Your task to perform on an android device: Open the phone app and click the voicemail tab. Image 0: 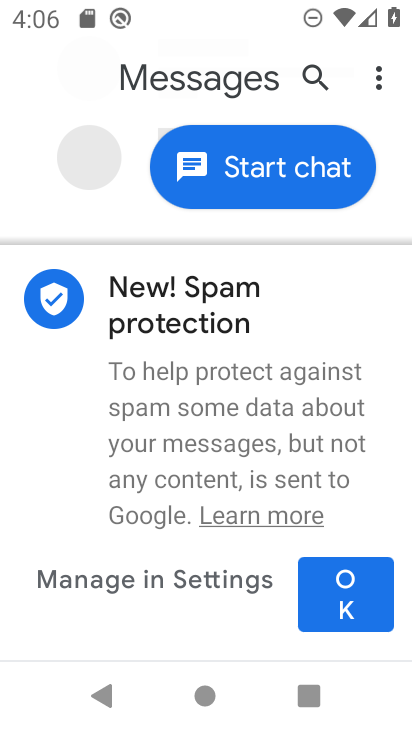
Step 0: press home button
Your task to perform on an android device: Open the phone app and click the voicemail tab. Image 1: 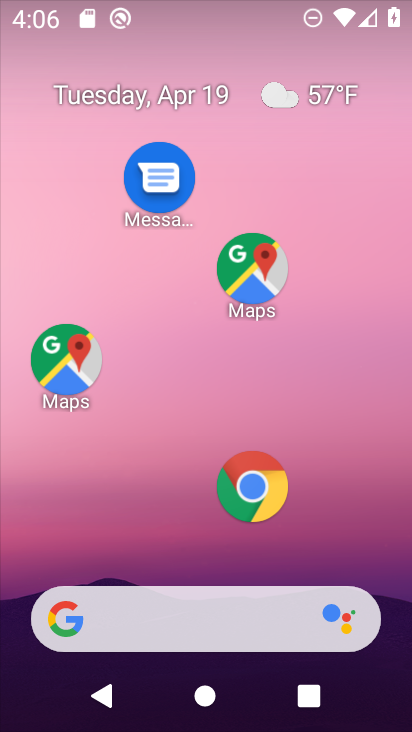
Step 1: drag from (198, 524) to (186, 114)
Your task to perform on an android device: Open the phone app and click the voicemail tab. Image 2: 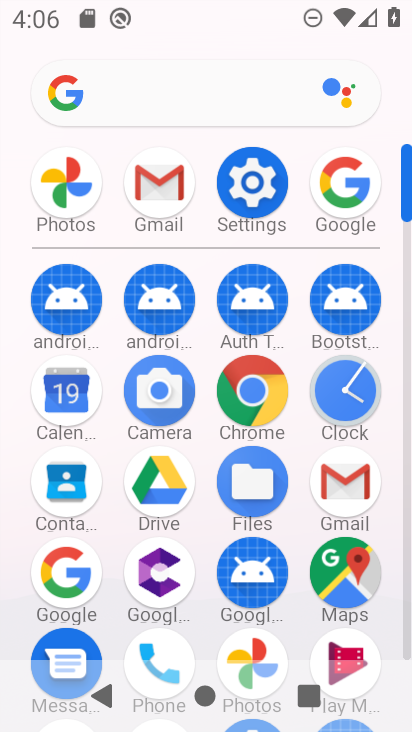
Step 2: click (150, 636)
Your task to perform on an android device: Open the phone app and click the voicemail tab. Image 3: 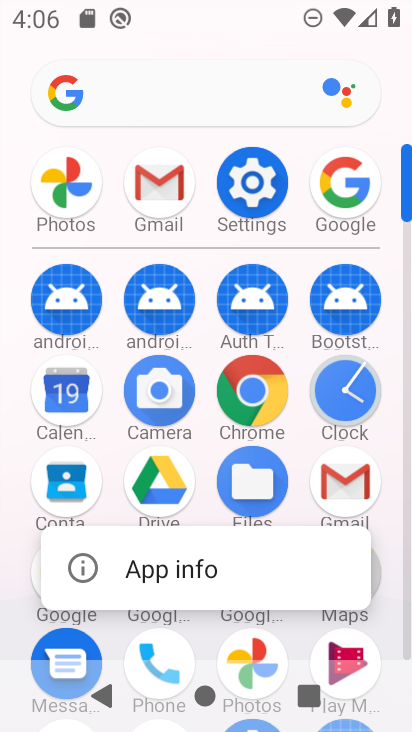
Step 3: click (161, 565)
Your task to perform on an android device: Open the phone app and click the voicemail tab. Image 4: 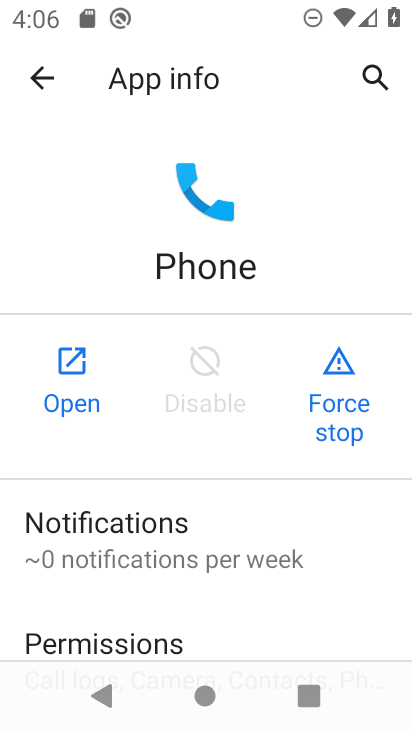
Step 4: click (13, 393)
Your task to perform on an android device: Open the phone app and click the voicemail tab. Image 5: 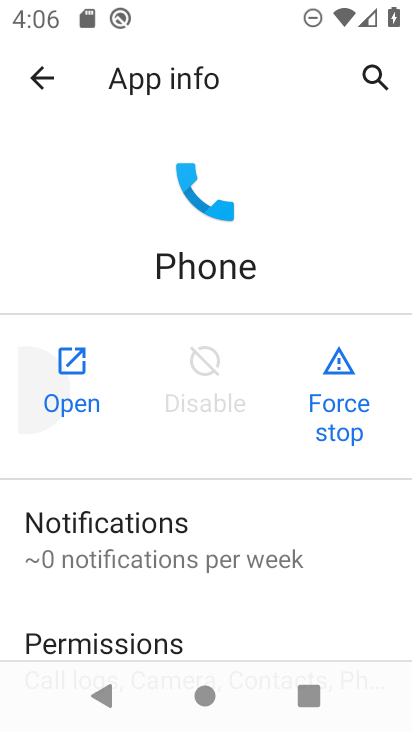
Step 5: click (39, 395)
Your task to perform on an android device: Open the phone app and click the voicemail tab. Image 6: 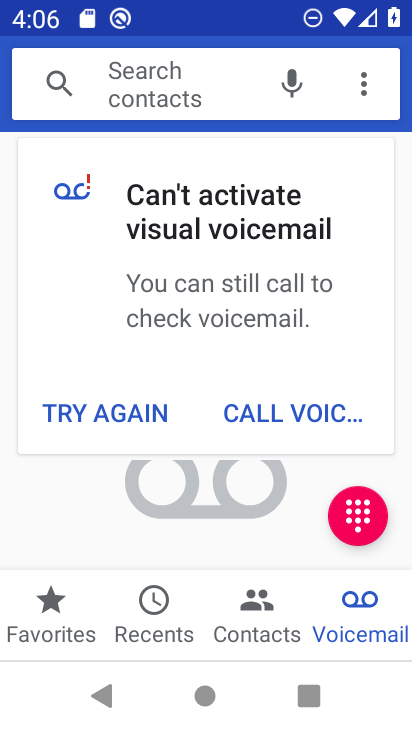
Step 6: click (360, 615)
Your task to perform on an android device: Open the phone app and click the voicemail tab. Image 7: 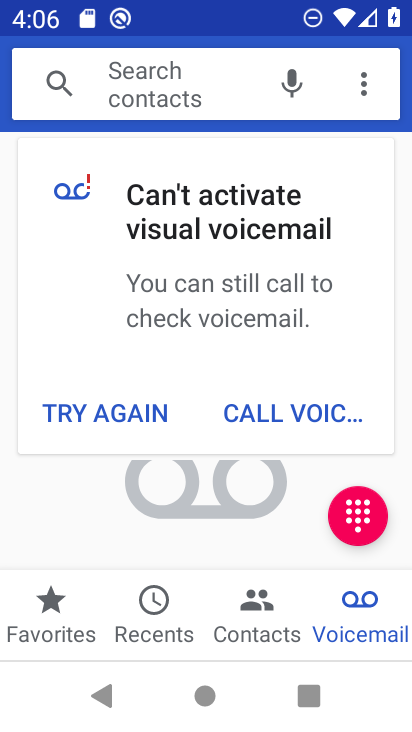
Step 7: task complete